Your task to perform on an android device: Open wifi settings Image 0: 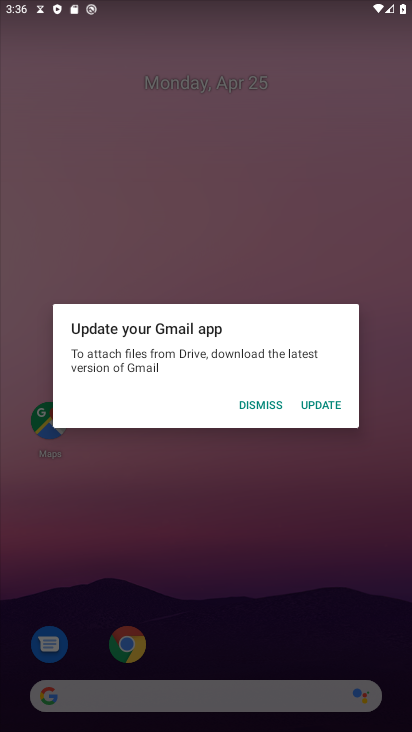
Step 0: press home button
Your task to perform on an android device: Open wifi settings Image 1: 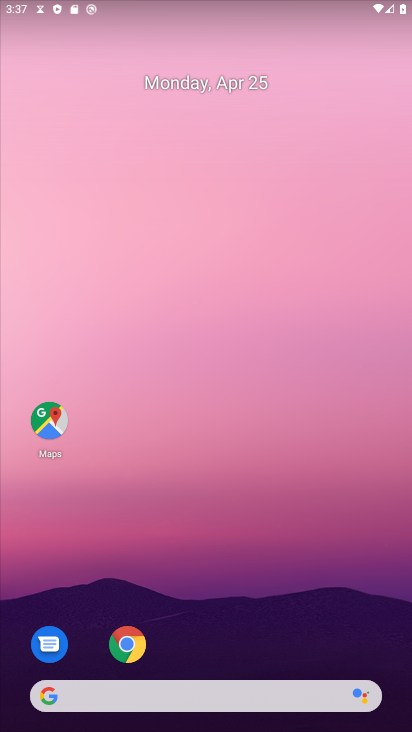
Step 1: drag from (214, 658) to (261, 15)
Your task to perform on an android device: Open wifi settings Image 2: 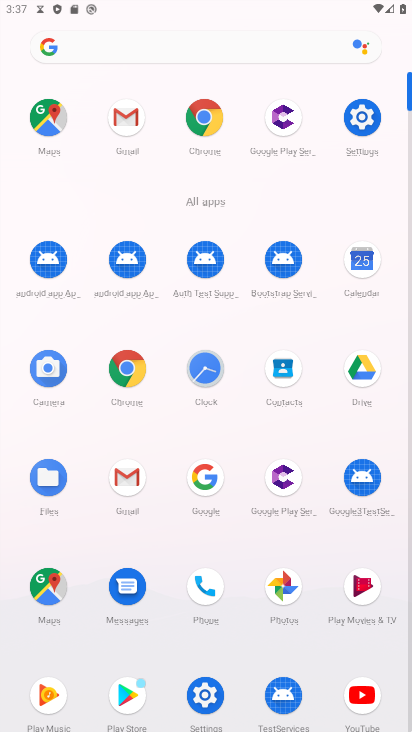
Step 2: click (353, 113)
Your task to perform on an android device: Open wifi settings Image 3: 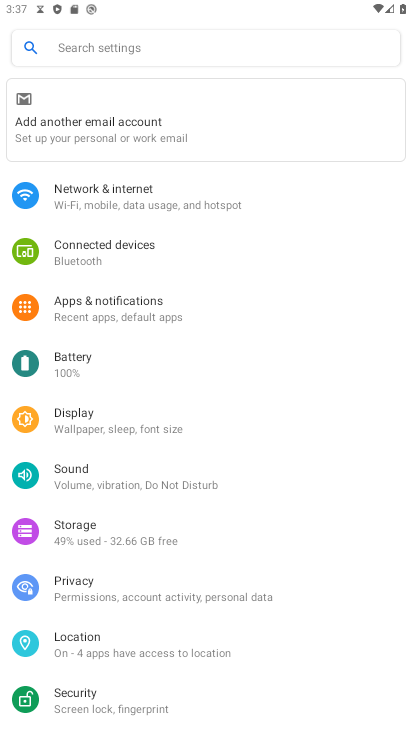
Step 3: click (119, 196)
Your task to perform on an android device: Open wifi settings Image 4: 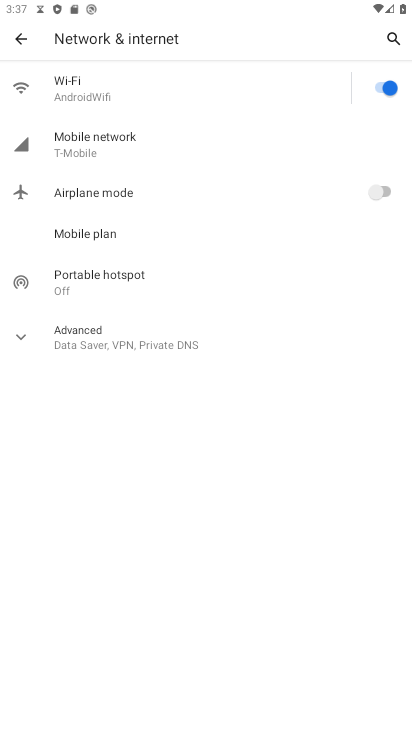
Step 4: click (22, 340)
Your task to perform on an android device: Open wifi settings Image 5: 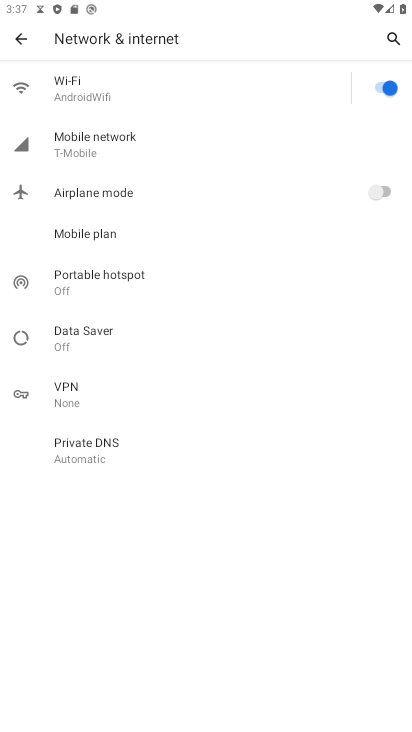
Step 5: task complete